Your task to perform on an android device: Open network settings Image 0: 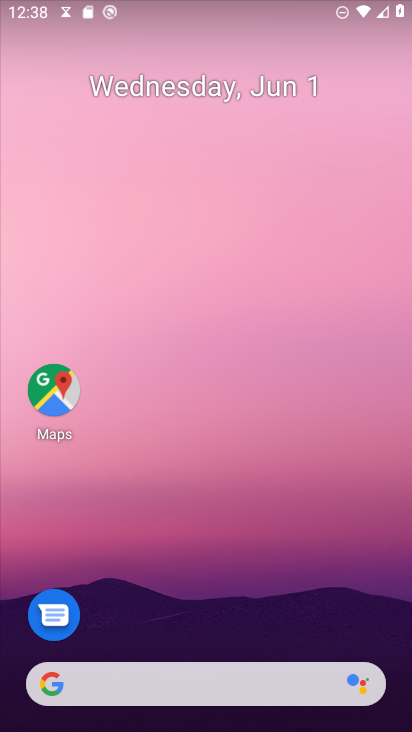
Step 0: drag from (221, 688) to (213, 62)
Your task to perform on an android device: Open network settings Image 1: 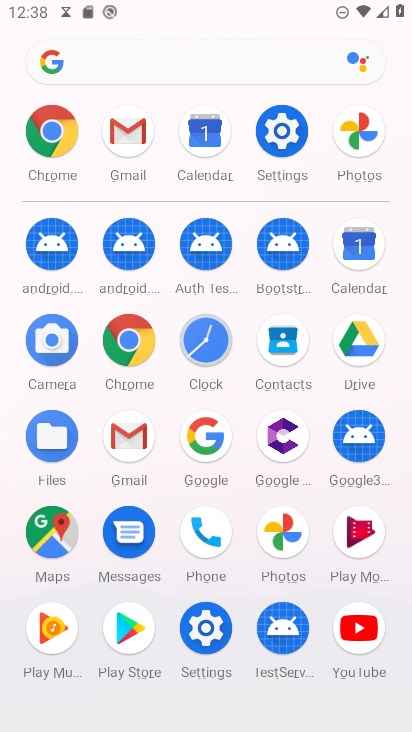
Step 1: click (280, 138)
Your task to perform on an android device: Open network settings Image 2: 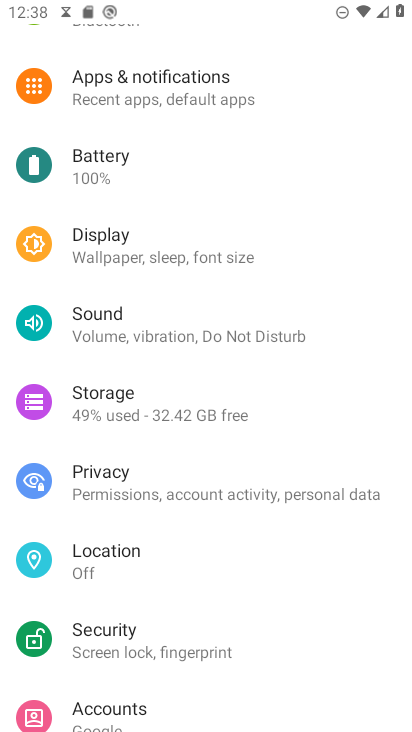
Step 2: drag from (188, 253) to (205, 730)
Your task to perform on an android device: Open network settings Image 3: 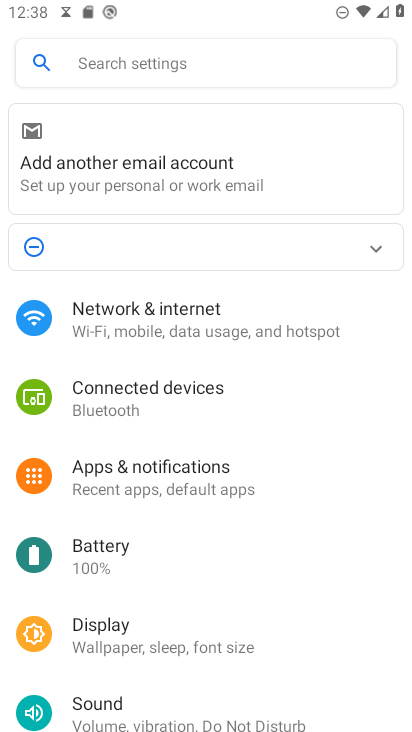
Step 3: click (181, 333)
Your task to perform on an android device: Open network settings Image 4: 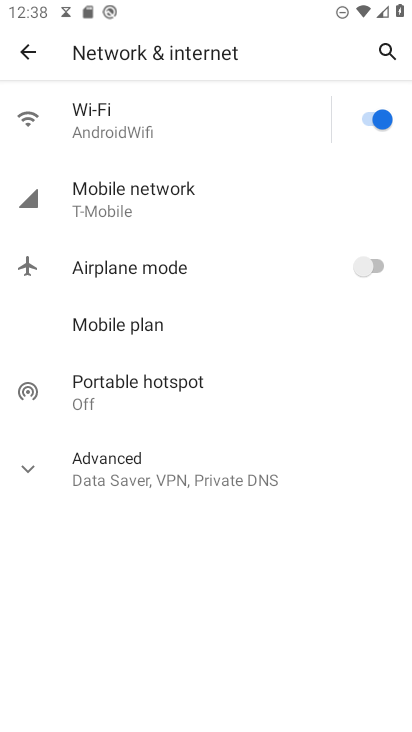
Step 4: task complete